Your task to perform on an android device: add a label to a message in the gmail app Image 0: 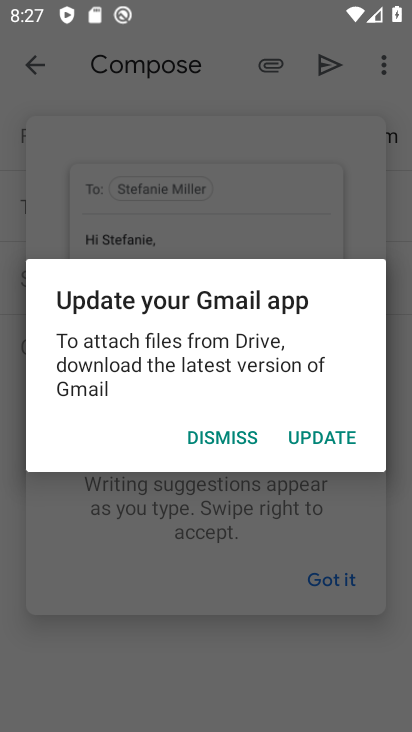
Step 0: press home button
Your task to perform on an android device: add a label to a message in the gmail app Image 1: 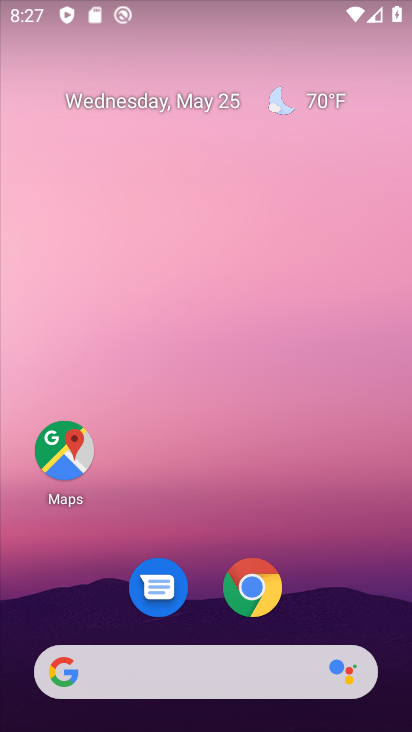
Step 1: drag from (193, 617) to (190, 172)
Your task to perform on an android device: add a label to a message in the gmail app Image 2: 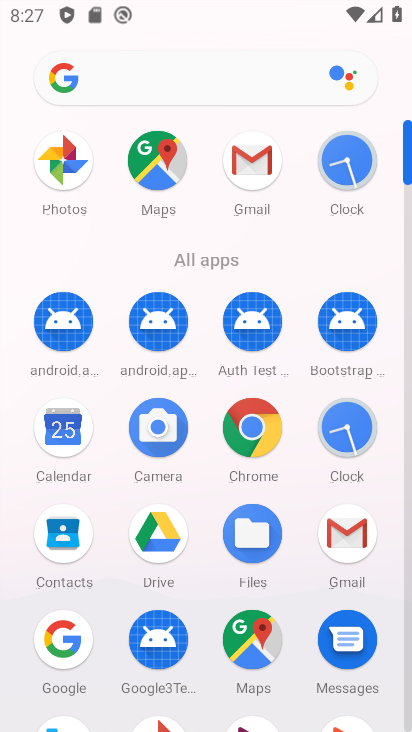
Step 2: click (356, 540)
Your task to perform on an android device: add a label to a message in the gmail app Image 3: 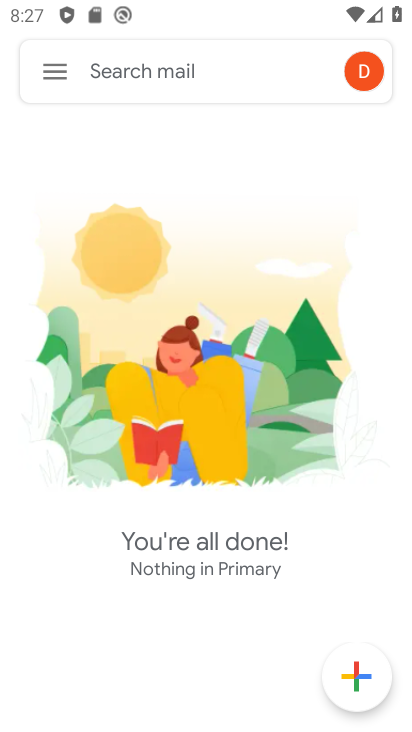
Step 3: click (52, 71)
Your task to perform on an android device: add a label to a message in the gmail app Image 4: 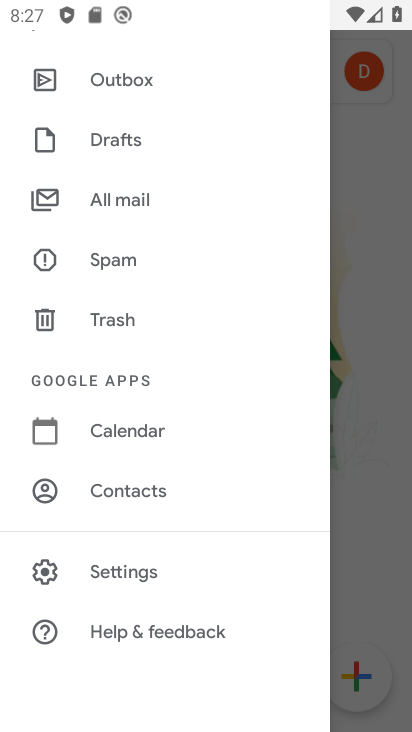
Step 4: click (140, 195)
Your task to perform on an android device: add a label to a message in the gmail app Image 5: 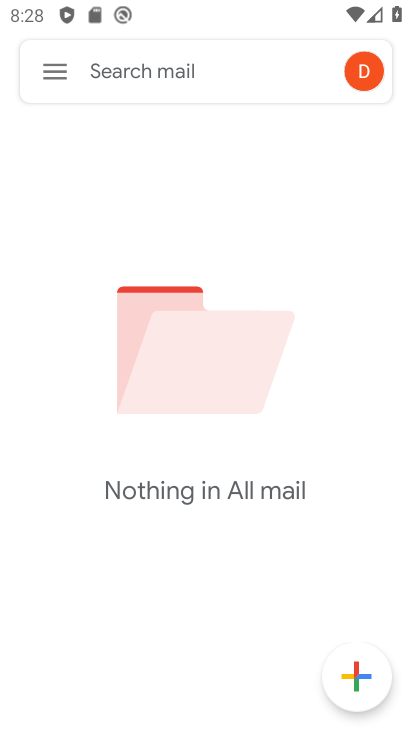
Step 5: task complete